Your task to perform on an android device: add a label to a message in the gmail app Image 0: 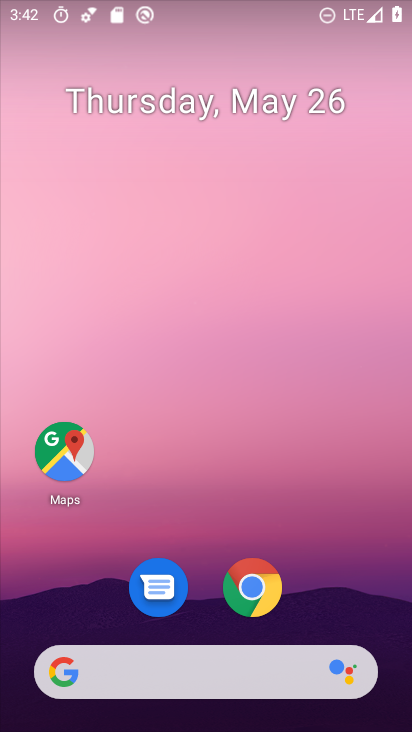
Step 0: drag from (300, 566) to (313, 209)
Your task to perform on an android device: add a label to a message in the gmail app Image 1: 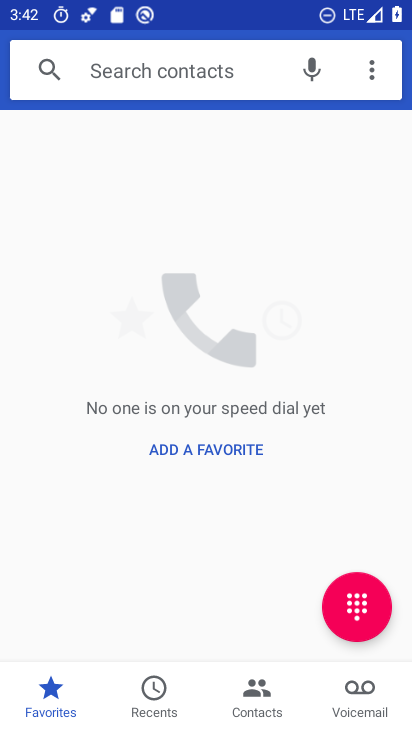
Step 1: press home button
Your task to perform on an android device: add a label to a message in the gmail app Image 2: 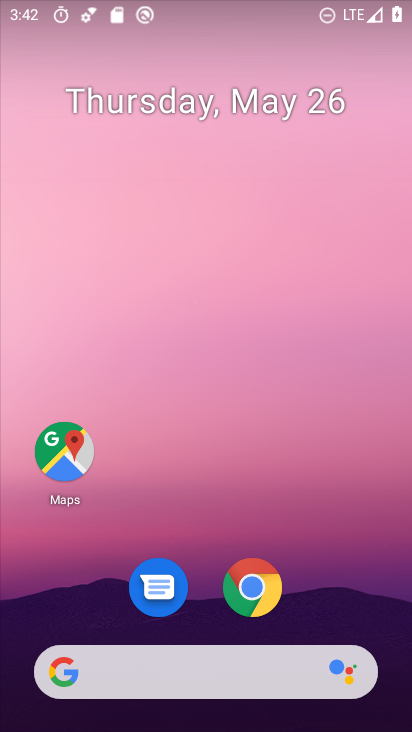
Step 2: drag from (347, 573) to (373, 141)
Your task to perform on an android device: add a label to a message in the gmail app Image 3: 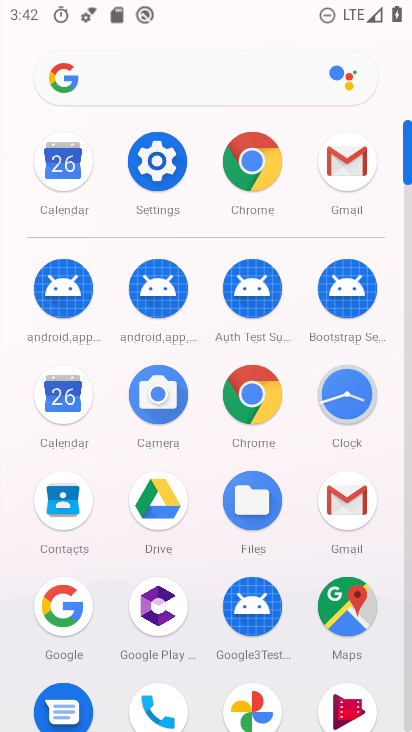
Step 3: click (364, 164)
Your task to perform on an android device: add a label to a message in the gmail app Image 4: 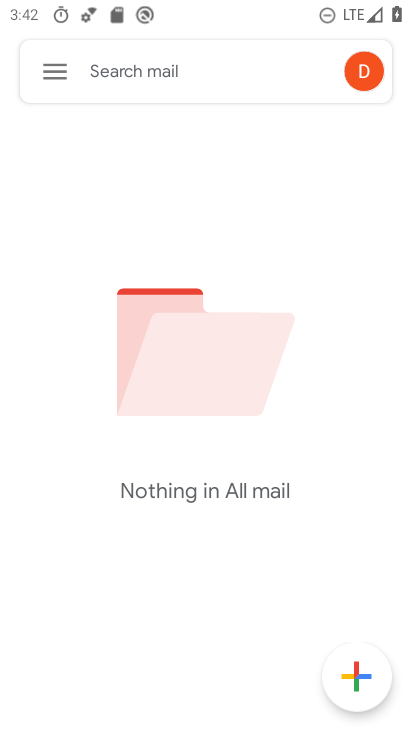
Step 4: click (30, 59)
Your task to perform on an android device: add a label to a message in the gmail app Image 5: 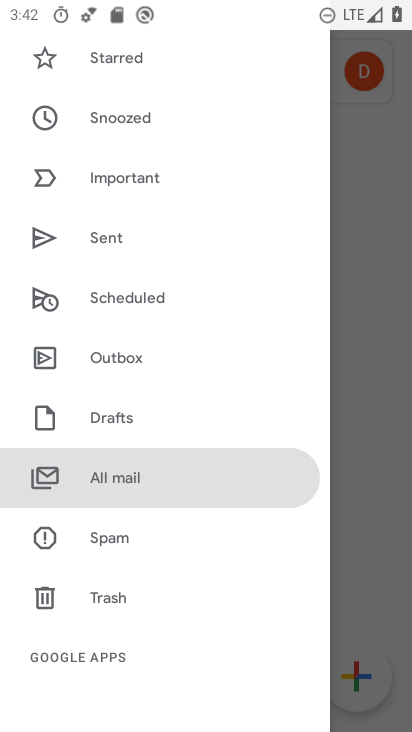
Step 5: click (363, 341)
Your task to perform on an android device: add a label to a message in the gmail app Image 6: 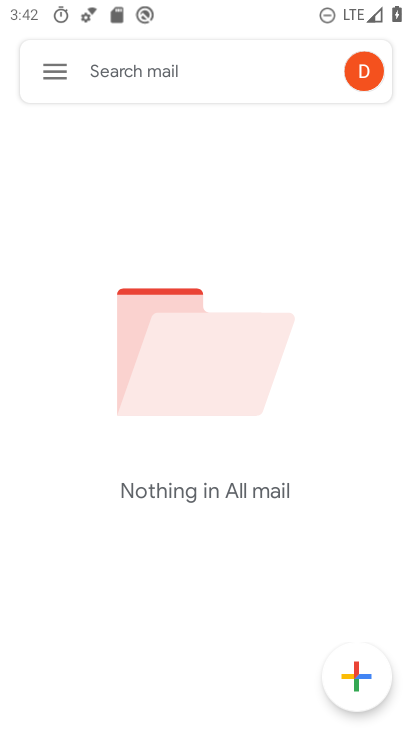
Step 6: task complete